Your task to perform on an android device: Open battery settings Image 0: 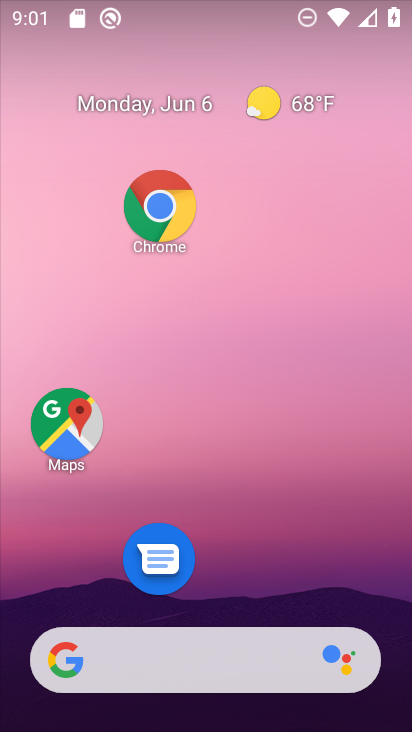
Step 0: drag from (216, 234) to (216, 187)
Your task to perform on an android device: Open battery settings Image 1: 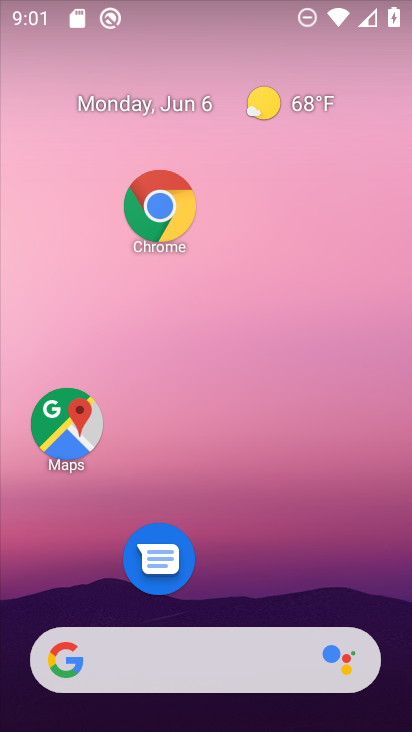
Step 1: drag from (273, 638) to (223, 160)
Your task to perform on an android device: Open battery settings Image 2: 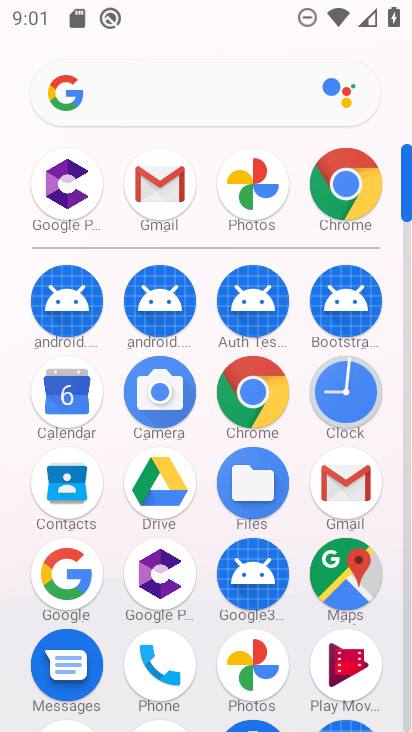
Step 2: drag from (227, 638) to (173, 258)
Your task to perform on an android device: Open battery settings Image 3: 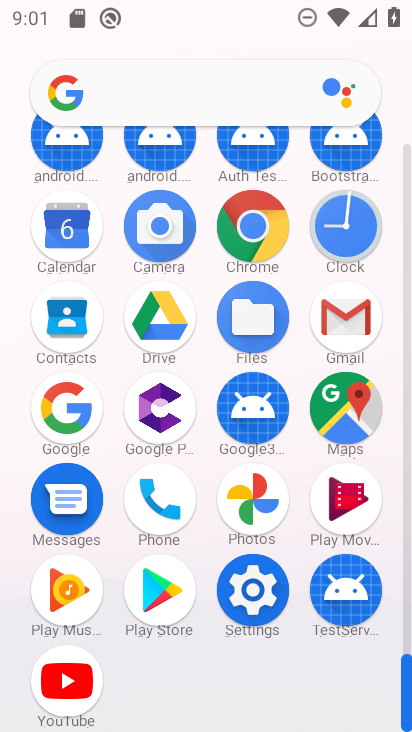
Step 3: click (256, 599)
Your task to perform on an android device: Open battery settings Image 4: 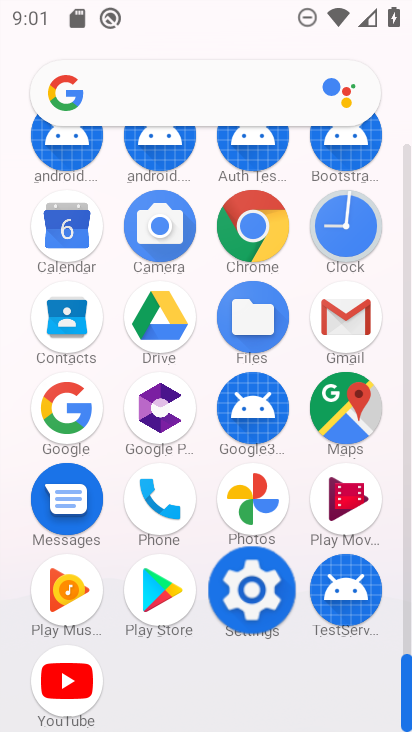
Step 4: click (256, 599)
Your task to perform on an android device: Open battery settings Image 5: 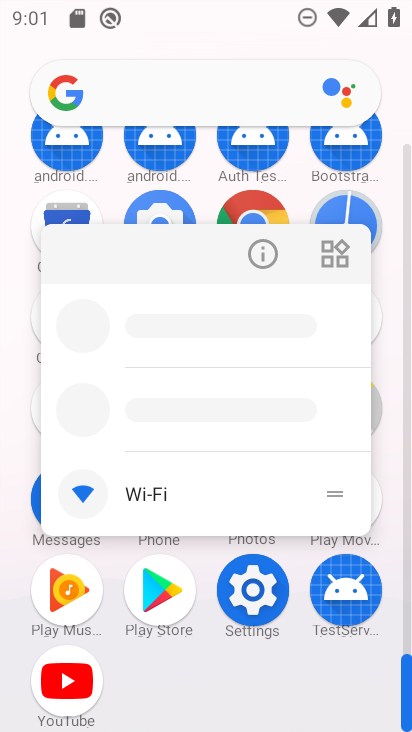
Step 5: click (255, 598)
Your task to perform on an android device: Open battery settings Image 6: 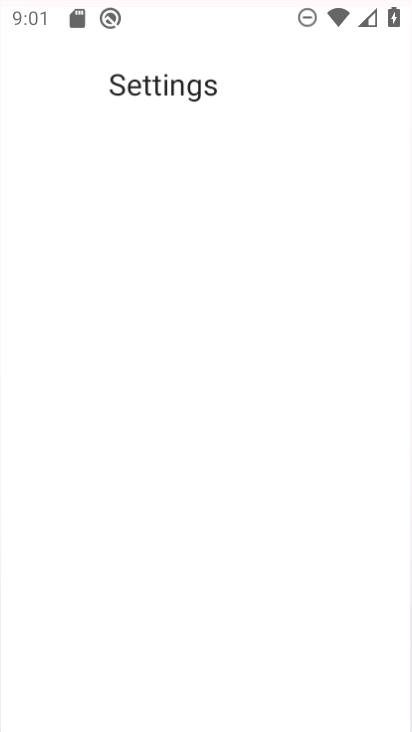
Step 6: click (253, 596)
Your task to perform on an android device: Open battery settings Image 7: 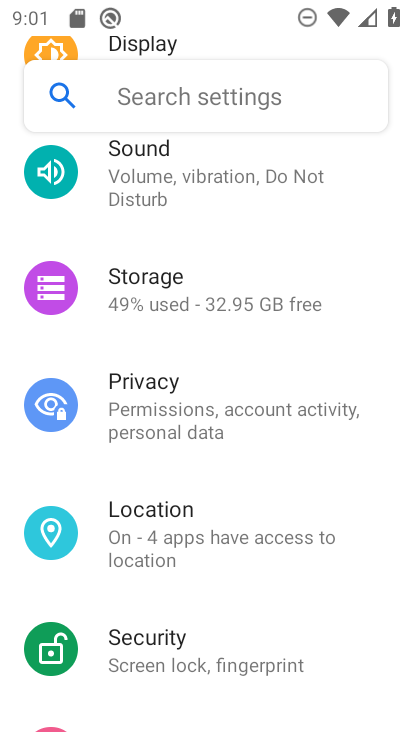
Step 7: click (258, 594)
Your task to perform on an android device: Open battery settings Image 8: 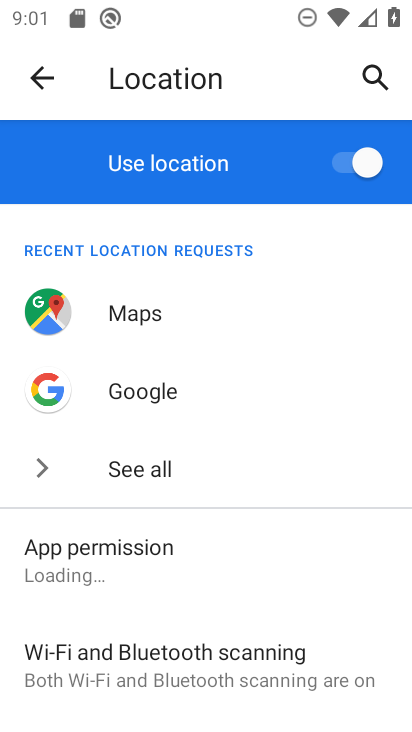
Step 8: click (41, 77)
Your task to perform on an android device: Open battery settings Image 9: 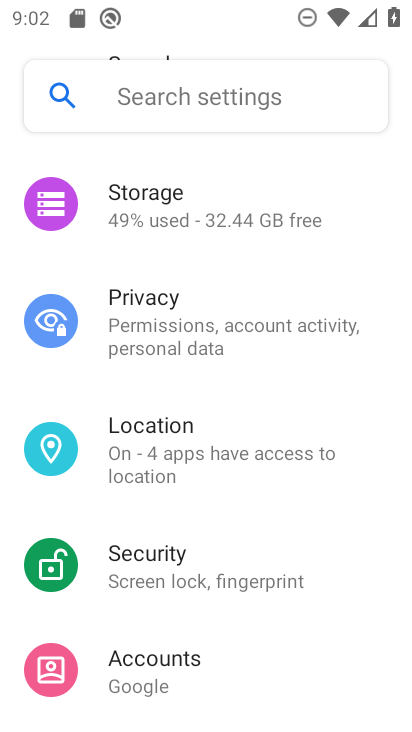
Step 9: drag from (149, 487) to (151, 217)
Your task to perform on an android device: Open battery settings Image 10: 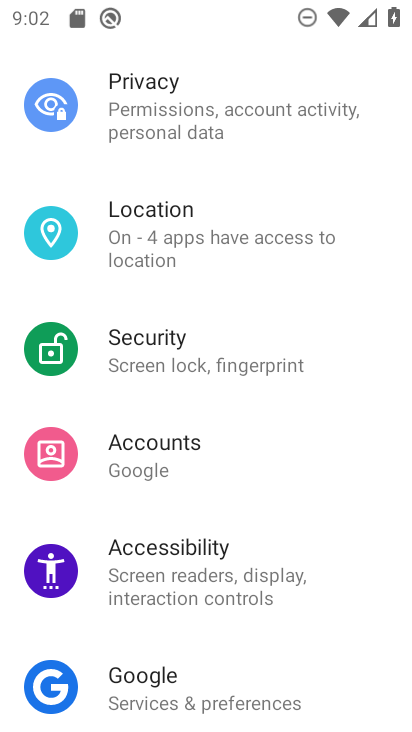
Step 10: drag from (158, 203) to (203, 494)
Your task to perform on an android device: Open battery settings Image 11: 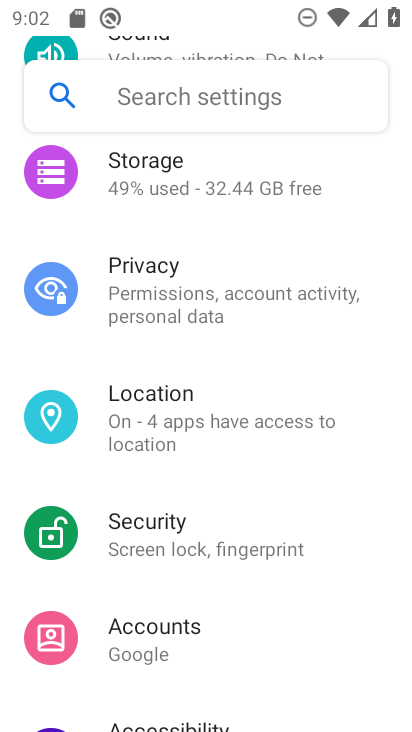
Step 11: drag from (203, 332) to (241, 532)
Your task to perform on an android device: Open battery settings Image 12: 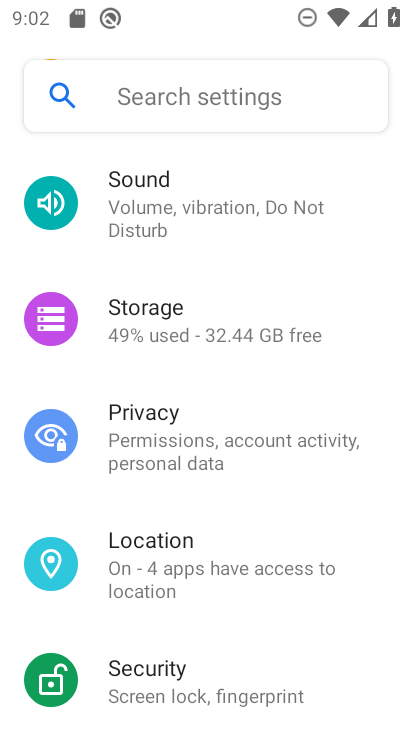
Step 12: drag from (232, 336) to (244, 566)
Your task to perform on an android device: Open battery settings Image 13: 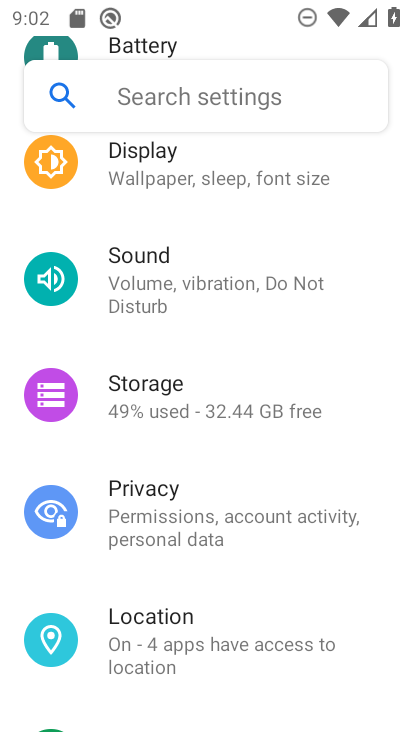
Step 13: drag from (147, 235) to (211, 612)
Your task to perform on an android device: Open battery settings Image 14: 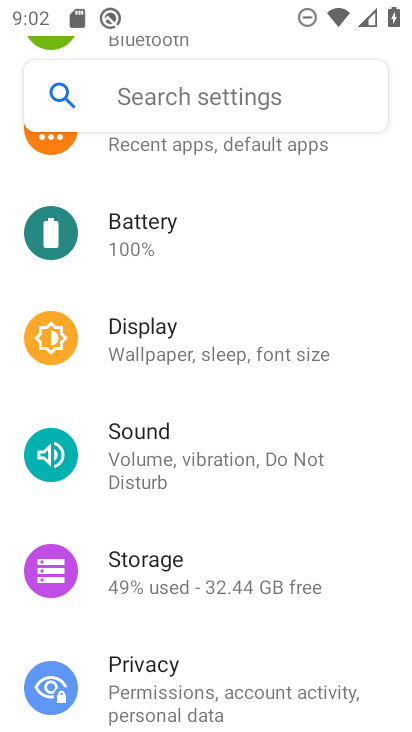
Step 14: drag from (167, 244) to (167, 671)
Your task to perform on an android device: Open battery settings Image 15: 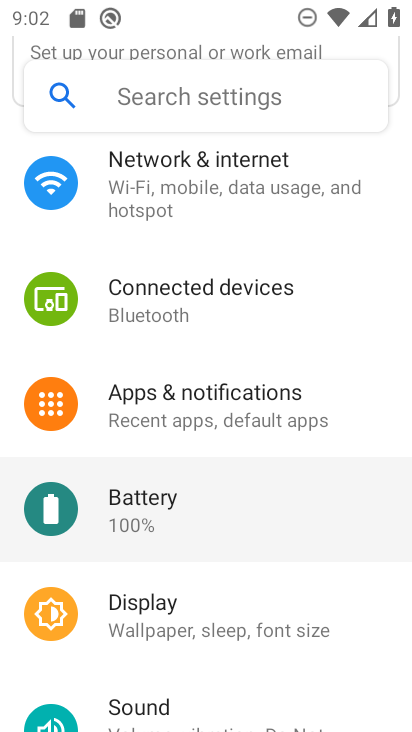
Step 15: drag from (118, 311) to (148, 585)
Your task to perform on an android device: Open battery settings Image 16: 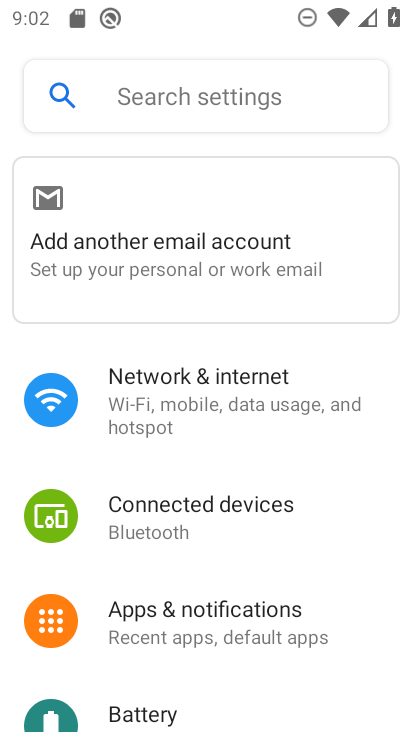
Step 16: drag from (219, 609) to (230, 305)
Your task to perform on an android device: Open battery settings Image 17: 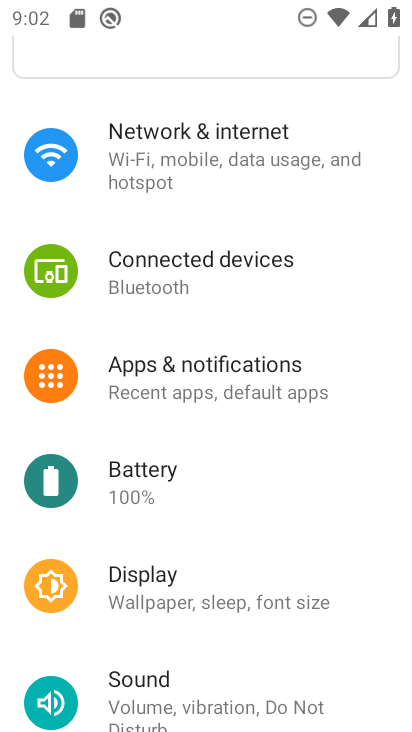
Step 17: drag from (233, 584) to (253, 368)
Your task to perform on an android device: Open battery settings Image 18: 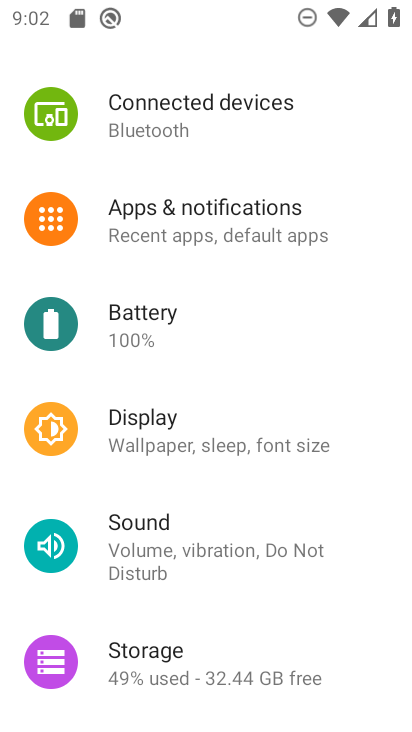
Step 18: click (136, 327)
Your task to perform on an android device: Open battery settings Image 19: 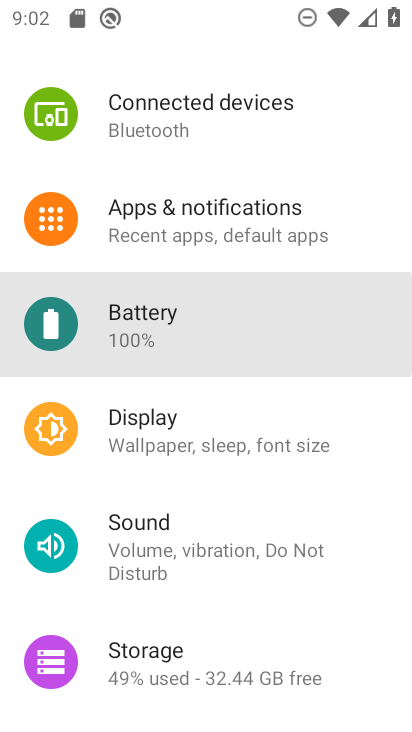
Step 19: click (135, 329)
Your task to perform on an android device: Open battery settings Image 20: 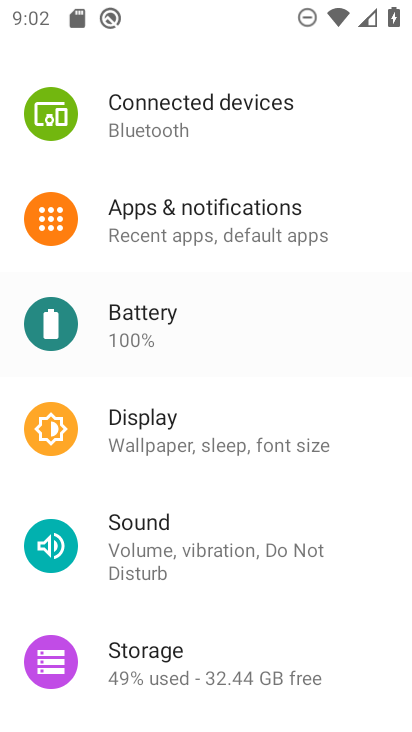
Step 20: click (135, 330)
Your task to perform on an android device: Open battery settings Image 21: 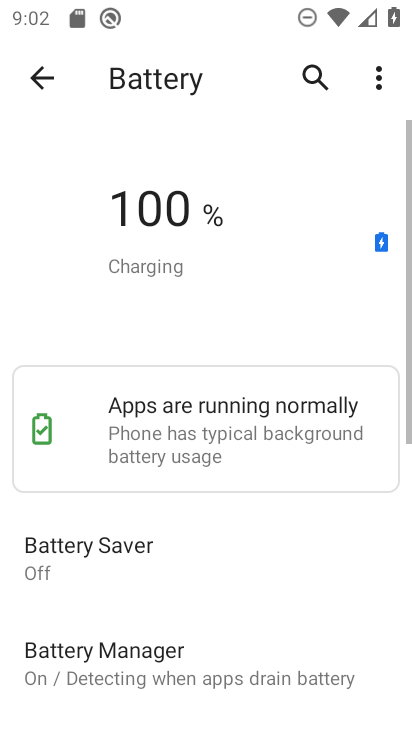
Step 21: task complete